Your task to perform on an android device: Open privacy settings Image 0: 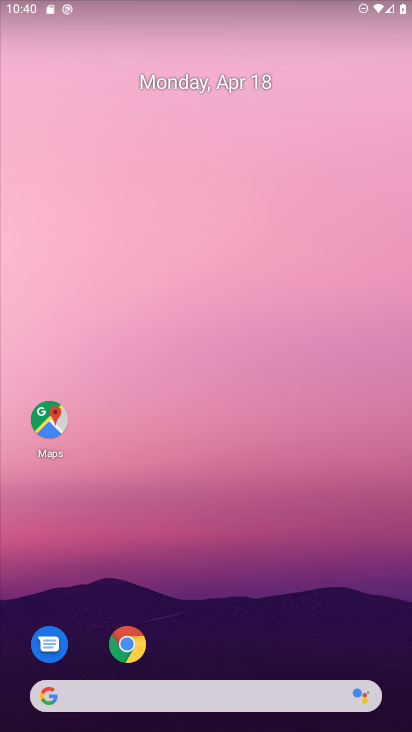
Step 0: drag from (171, 538) to (215, 73)
Your task to perform on an android device: Open privacy settings Image 1: 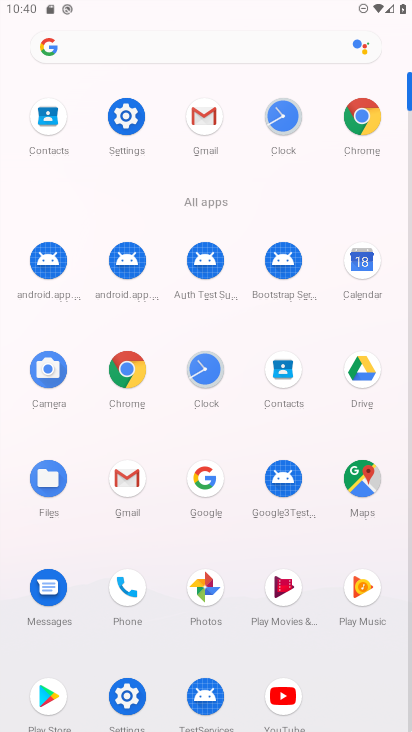
Step 1: click (130, 119)
Your task to perform on an android device: Open privacy settings Image 2: 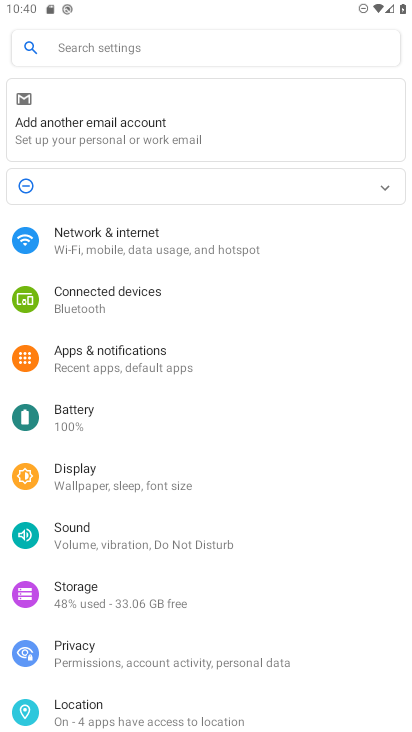
Step 2: click (119, 652)
Your task to perform on an android device: Open privacy settings Image 3: 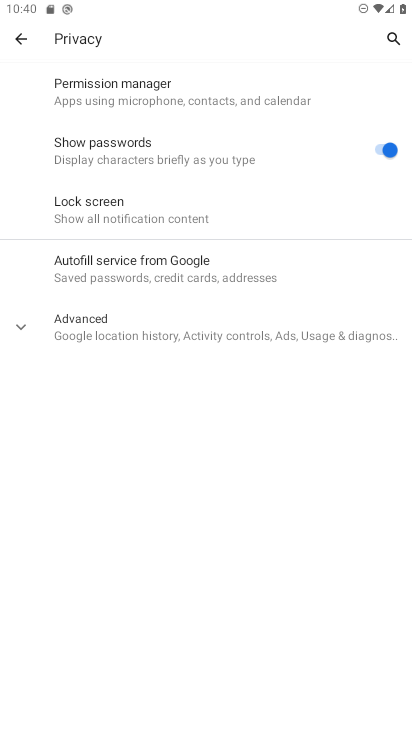
Step 3: task complete